Your task to perform on an android device: open app "Google Find My Device" Image 0: 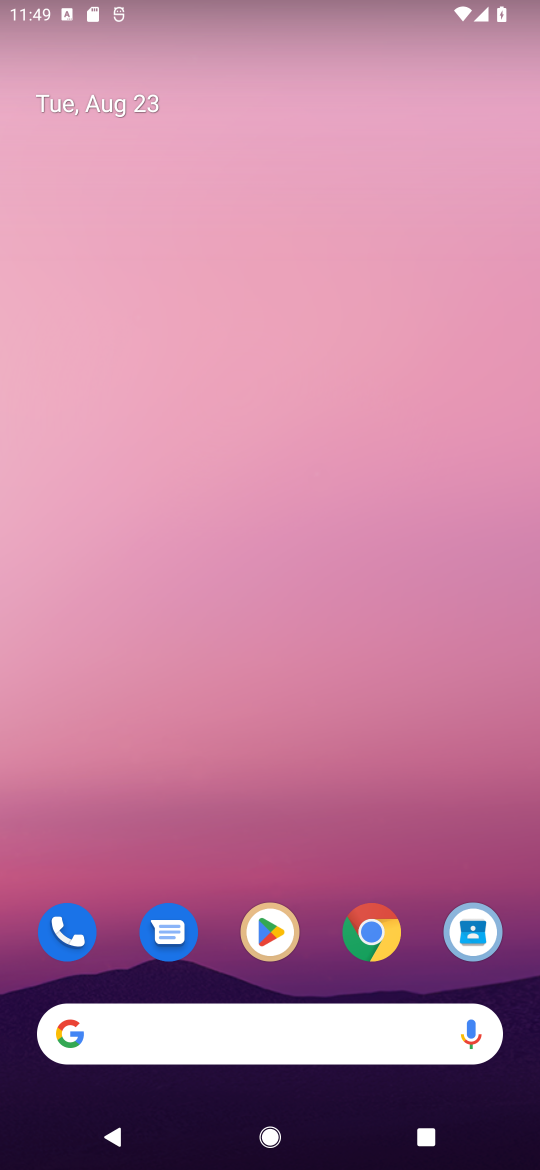
Step 0: click (269, 935)
Your task to perform on an android device: open app "Google Find My Device" Image 1: 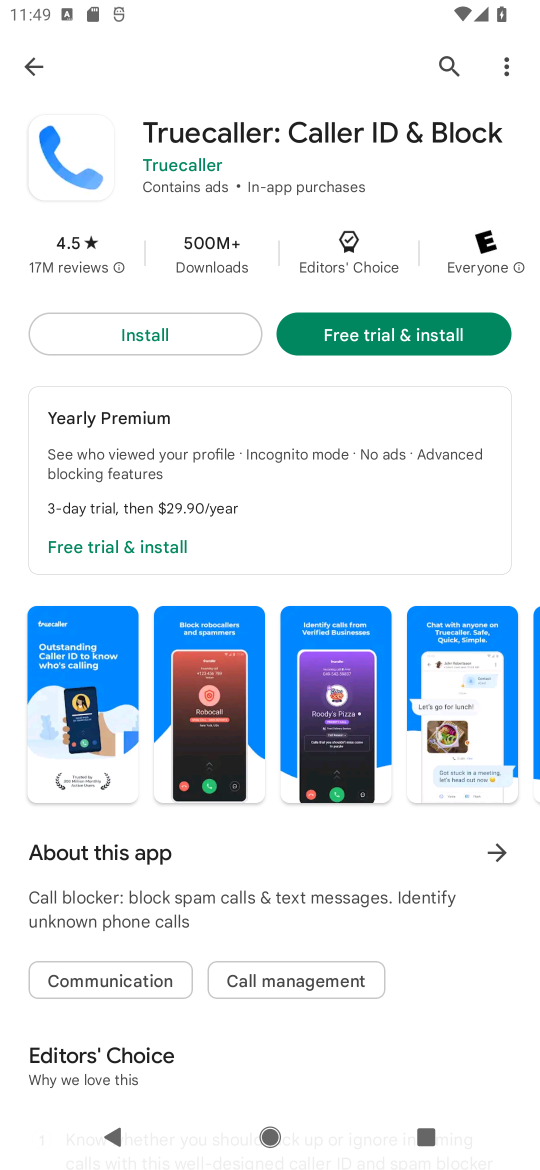
Step 1: click (455, 64)
Your task to perform on an android device: open app "Google Find My Device" Image 2: 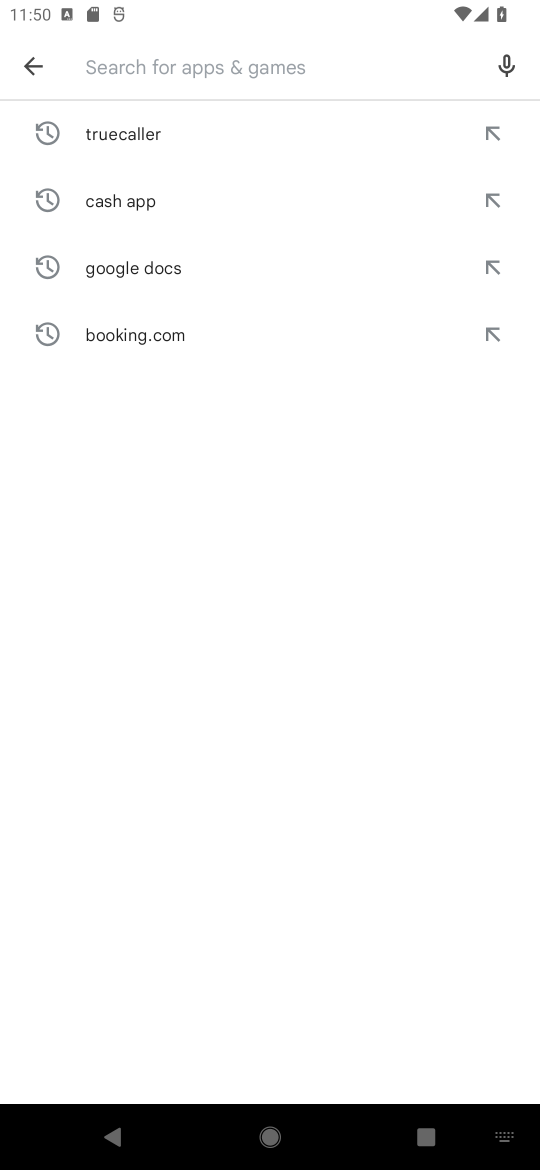
Step 2: click (156, 61)
Your task to perform on an android device: open app "Google Find My Device" Image 3: 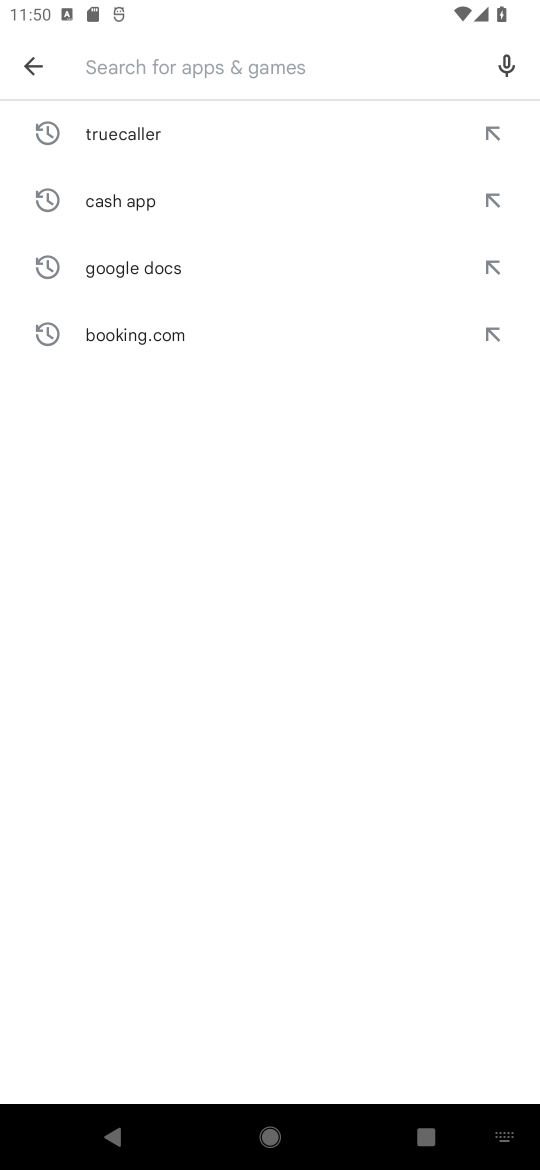
Step 3: type "Google Find My Device"
Your task to perform on an android device: open app "Google Find My Device" Image 4: 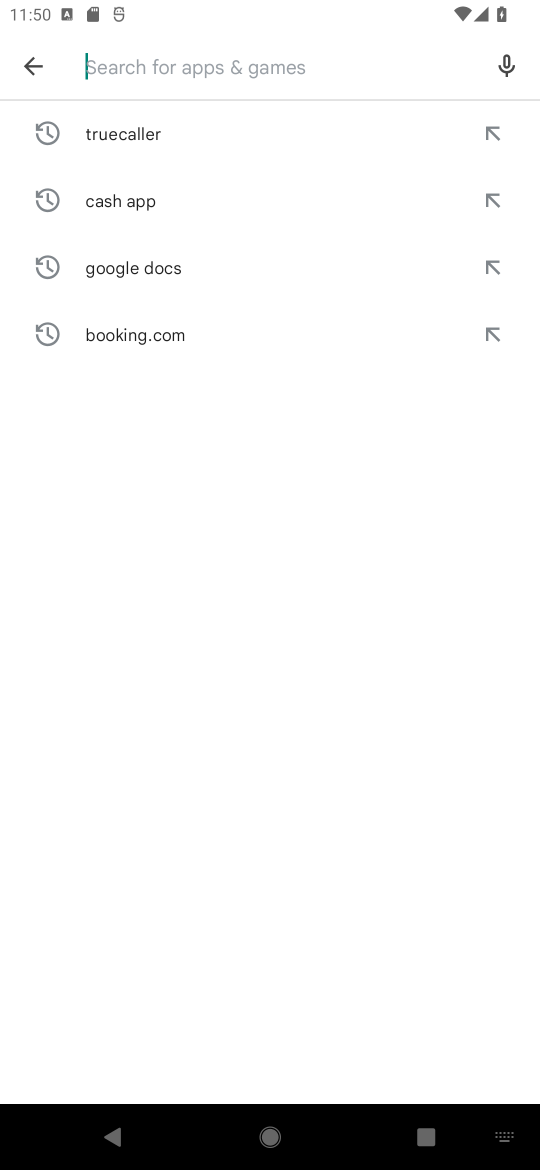
Step 4: click (325, 664)
Your task to perform on an android device: open app "Google Find My Device" Image 5: 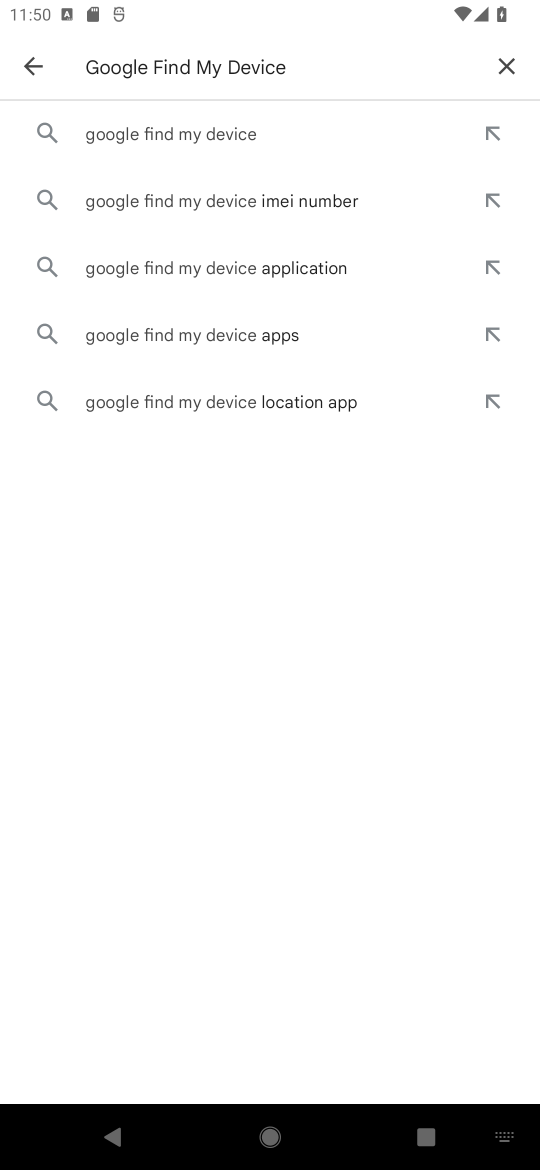
Step 5: click (208, 118)
Your task to perform on an android device: open app "Google Find My Device" Image 6: 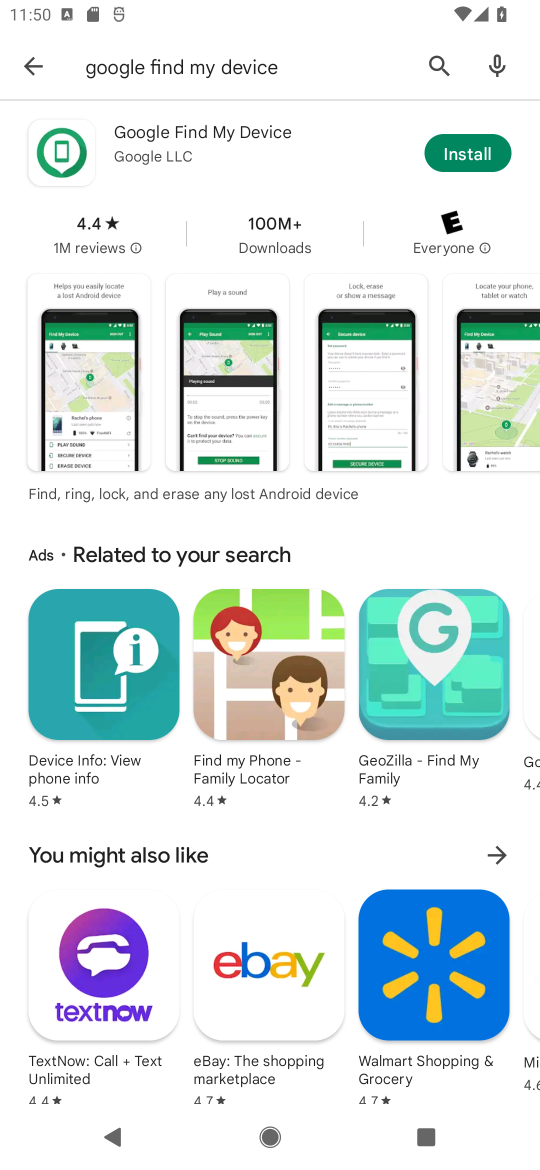
Step 6: task complete